Your task to perform on an android device: remove spam from my inbox in the gmail app Image 0: 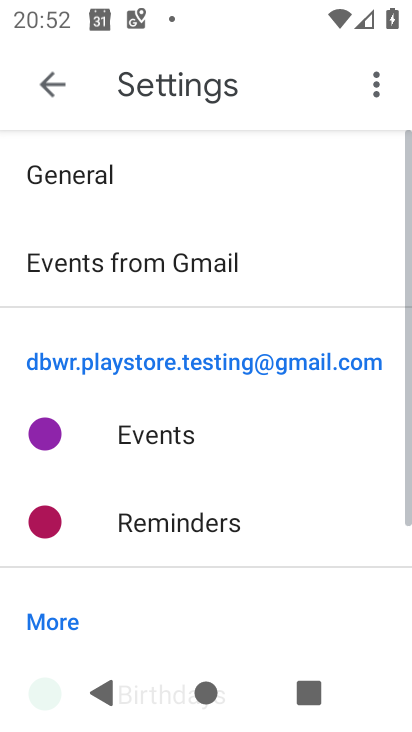
Step 0: drag from (326, 518) to (352, 179)
Your task to perform on an android device: remove spam from my inbox in the gmail app Image 1: 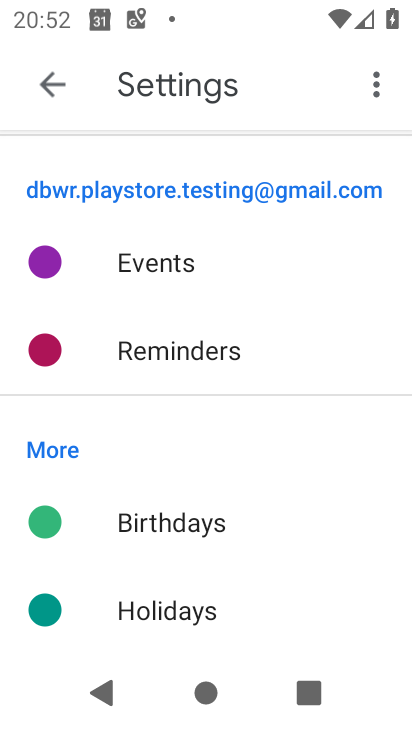
Step 1: press home button
Your task to perform on an android device: remove spam from my inbox in the gmail app Image 2: 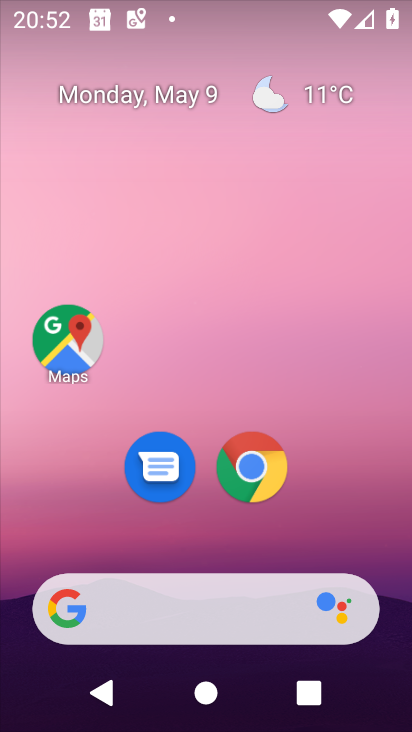
Step 2: drag from (385, 564) to (315, 269)
Your task to perform on an android device: remove spam from my inbox in the gmail app Image 3: 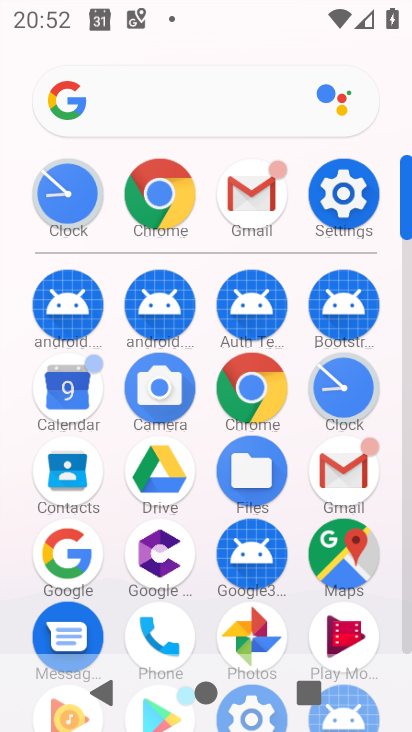
Step 3: click (342, 467)
Your task to perform on an android device: remove spam from my inbox in the gmail app Image 4: 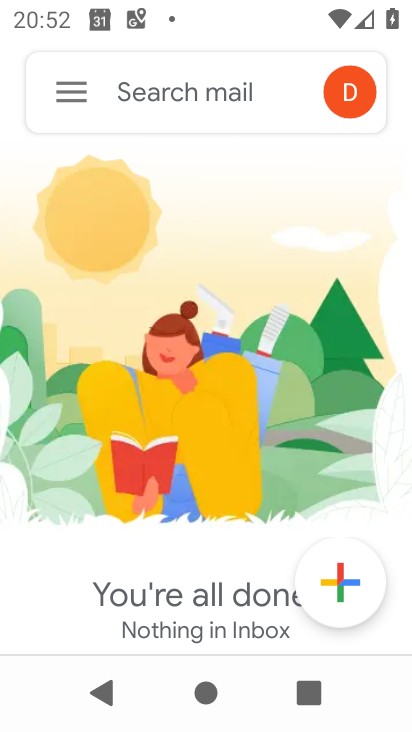
Step 4: click (59, 90)
Your task to perform on an android device: remove spam from my inbox in the gmail app Image 5: 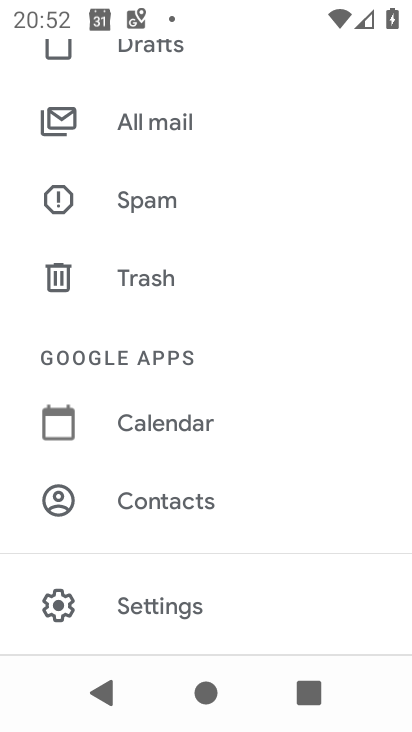
Step 5: click (149, 192)
Your task to perform on an android device: remove spam from my inbox in the gmail app Image 6: 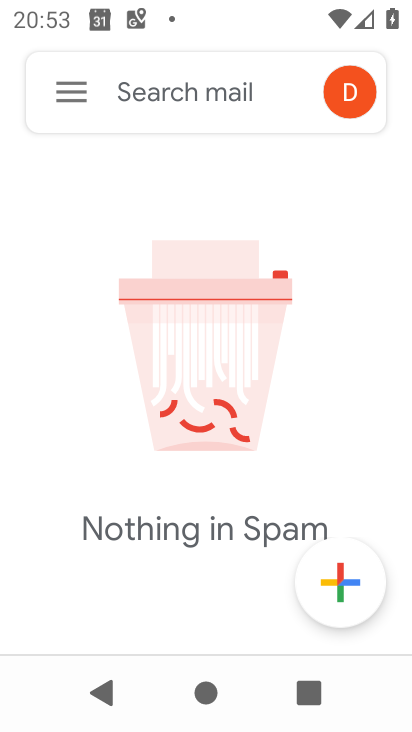
Step 6: task complete